Your task to perform on an android device: install app "Microsoft Outlook" Image 0: 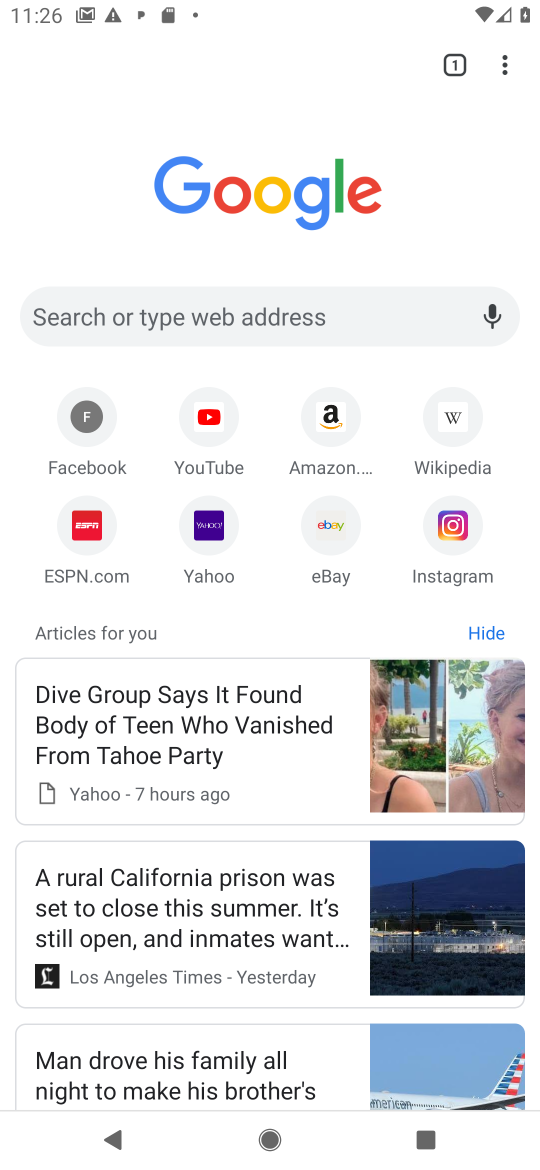
Step 0: press back button
Your task to perform on an android device: install app "Microsoft Outlook" Image 1: 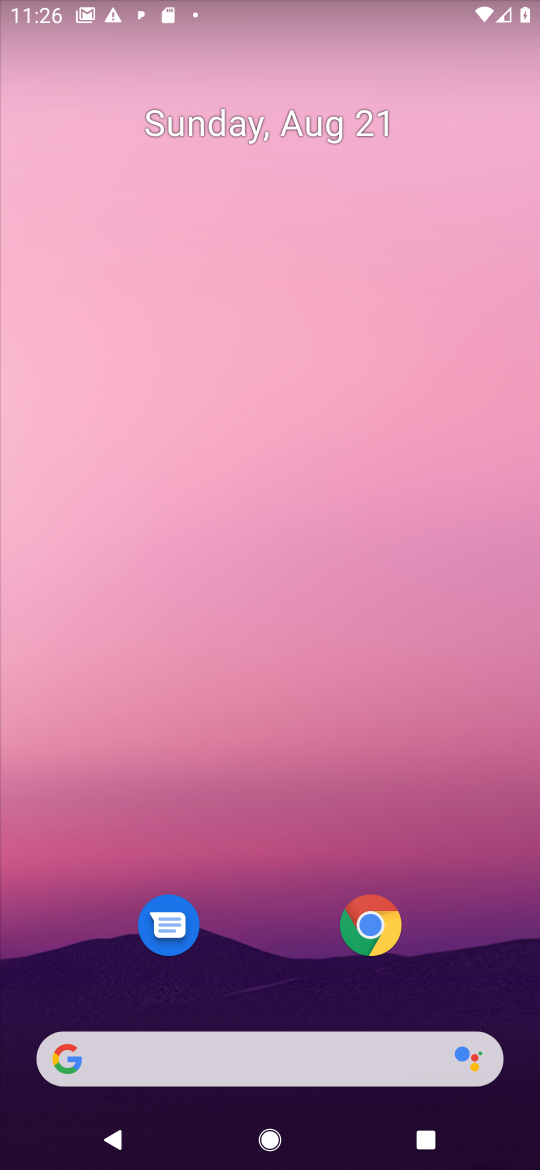
Step 1: drag from (288, 997) to (365, 12)
Your task to perform on an android device: install app "Microsoft Outlook" Image 2: 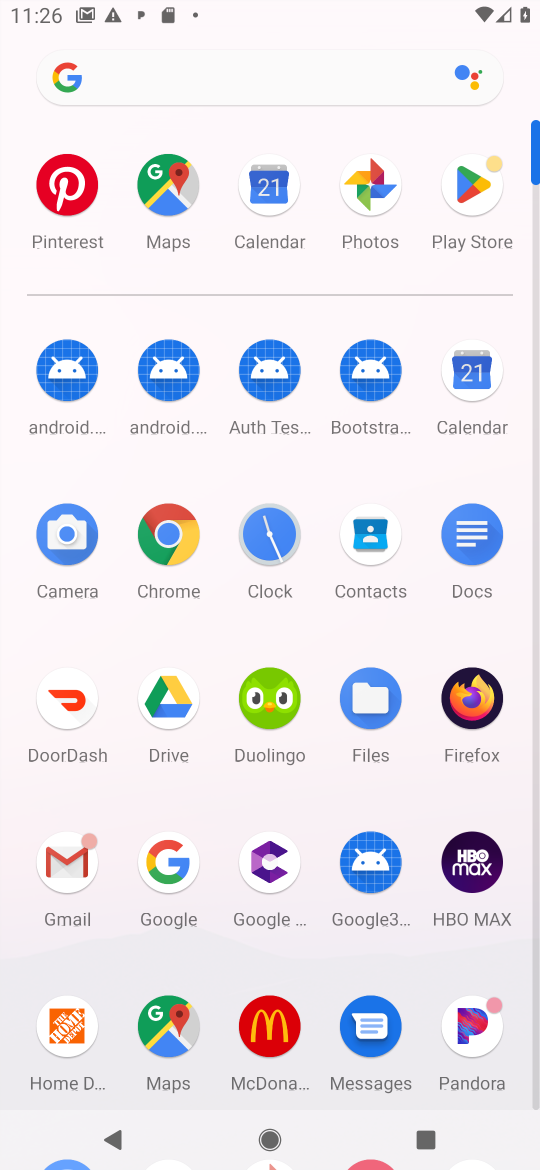
Step 2: click (479, 185)
Your task to perform on an android device: install app "Microsoft Outlook" Image 3: 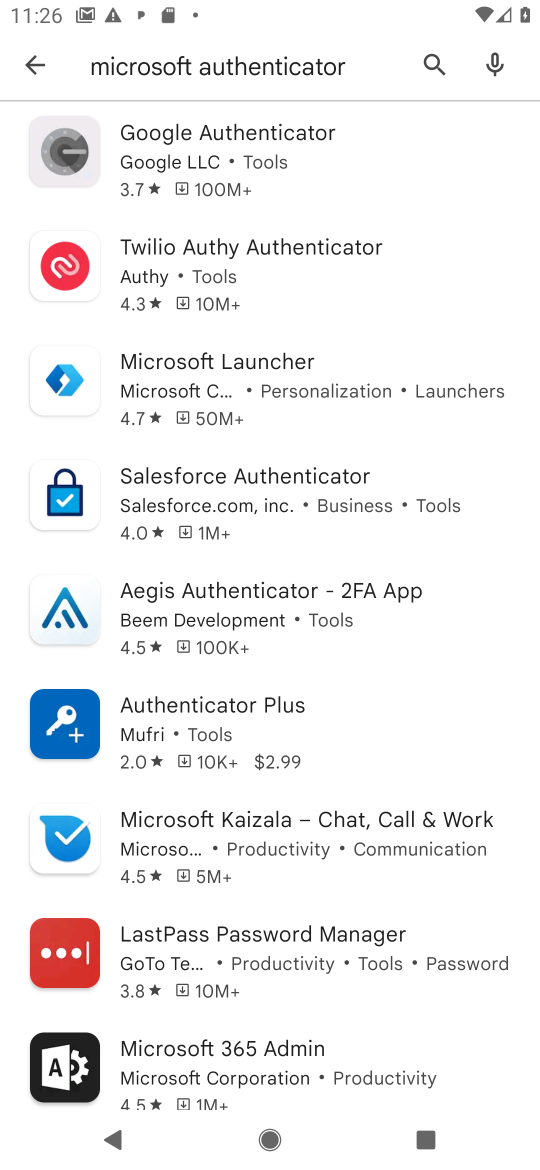
Step 3: click (433, 71)
Your task to perform on an android device: install app "Microsoft Outlook" Image 4: 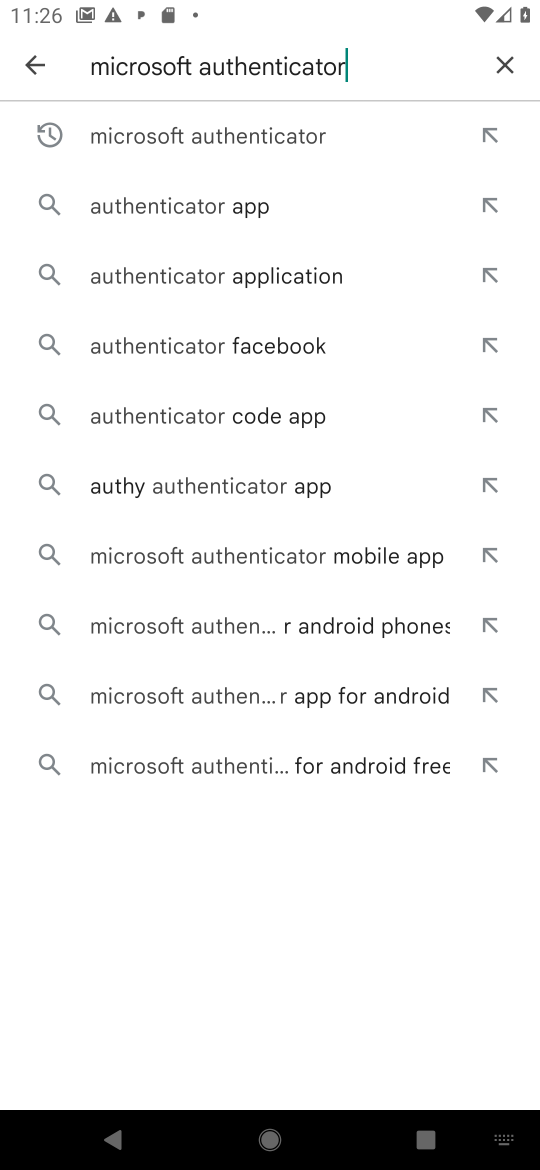
Step 4: click (507, 72)
Your task to perform on an android device: install app "Microsoft Outlook" Image 5: 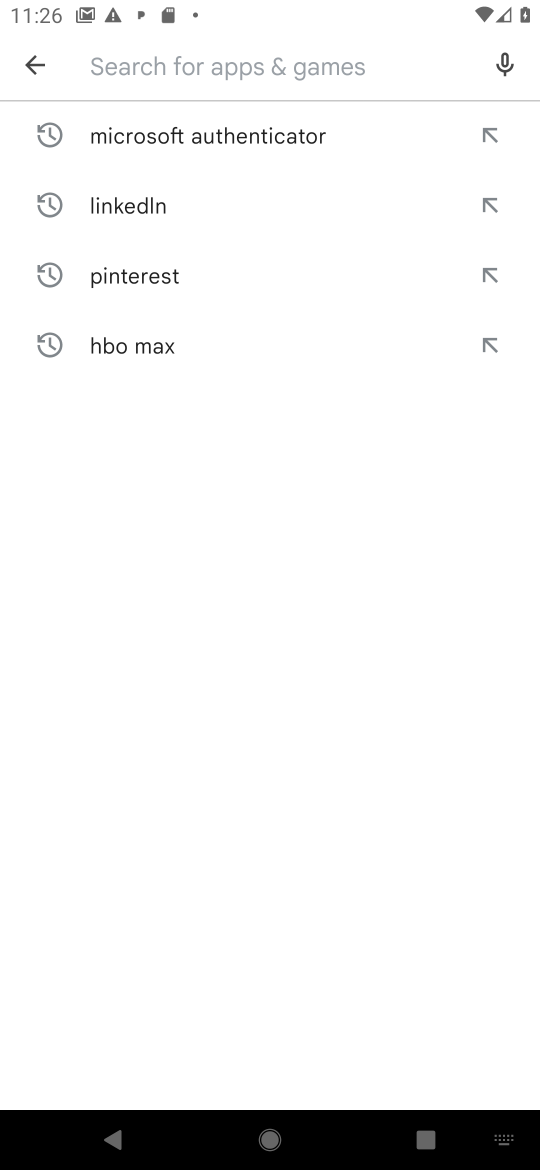
Step 5: click (125, 54)
Your task to perform on an android device: install app "Microsoft Outlook" Image 6: 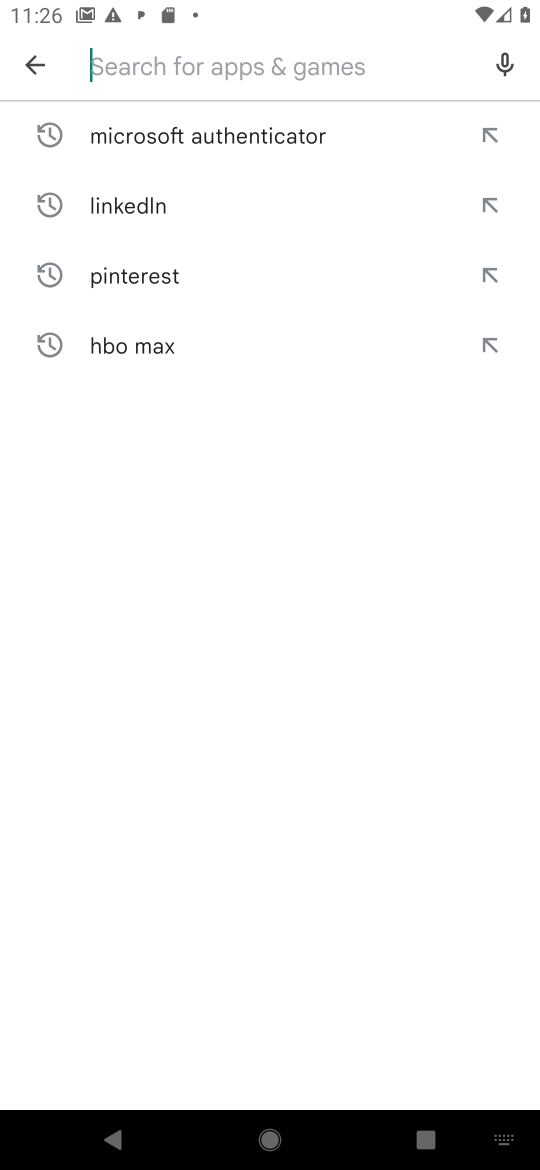
Step 6: type "Microsoft Outlook"
Your task to perform on an android device: install app "Microsoft Outlook" Image 7: 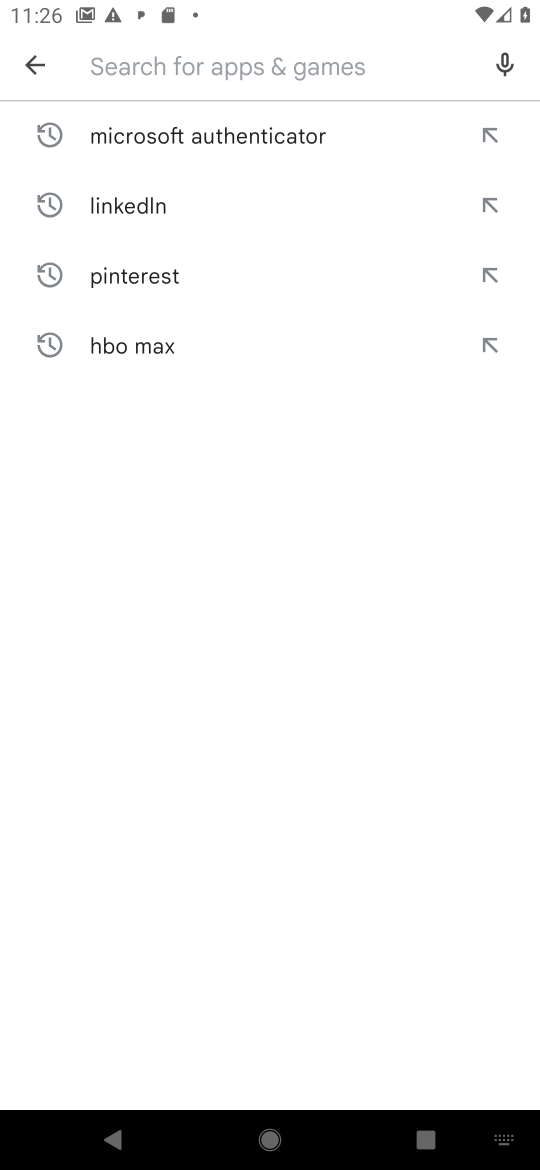
Step 7: click (252, 689)
Your task to perform on an android device: install app "Microsoft Outlook" Image 8: 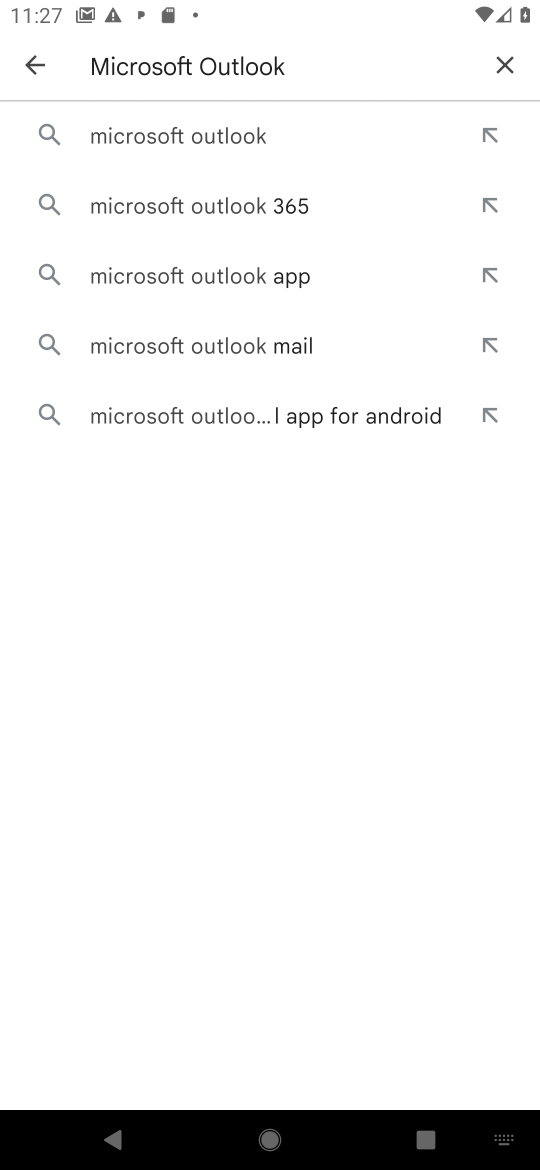
Step 8: click (193, 142)
Your task to perform on an android device: install app "Microsoft Outlook" Image 9: 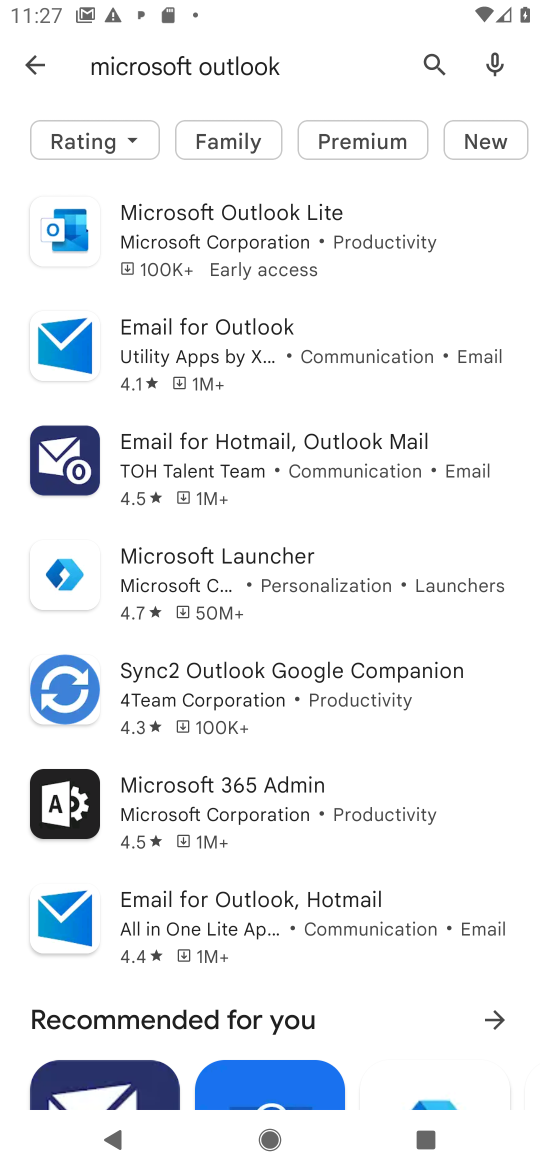
Step 9: click (310, 242)
Your task to perform on an android device: install app "Microsoft Outlook" Image 10: 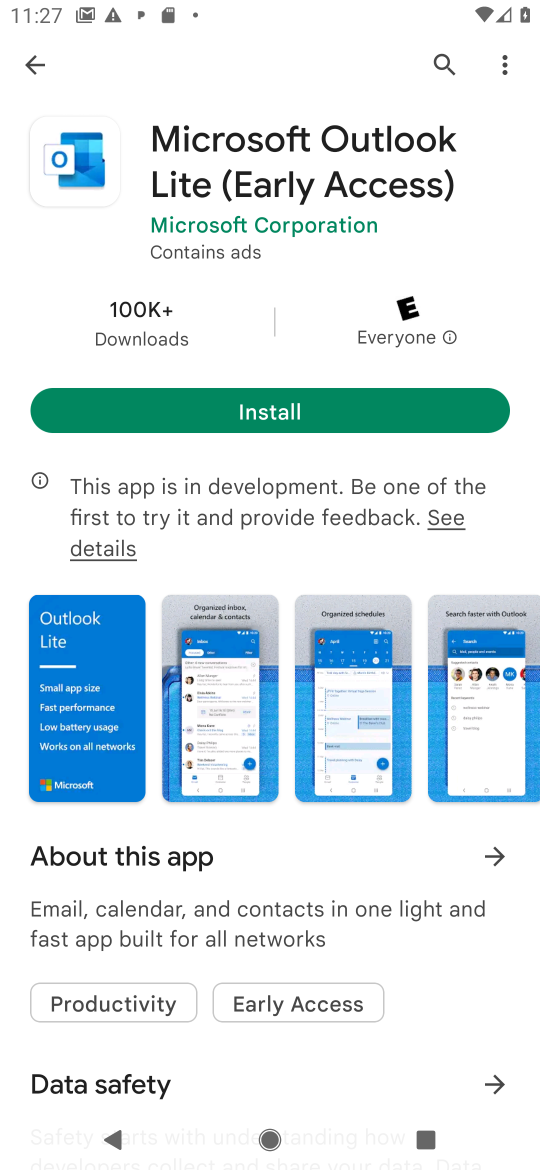
Step 10: task complete